Your task to perform on an android device: Search for a coffee table on Crate & Barrel Image 0: 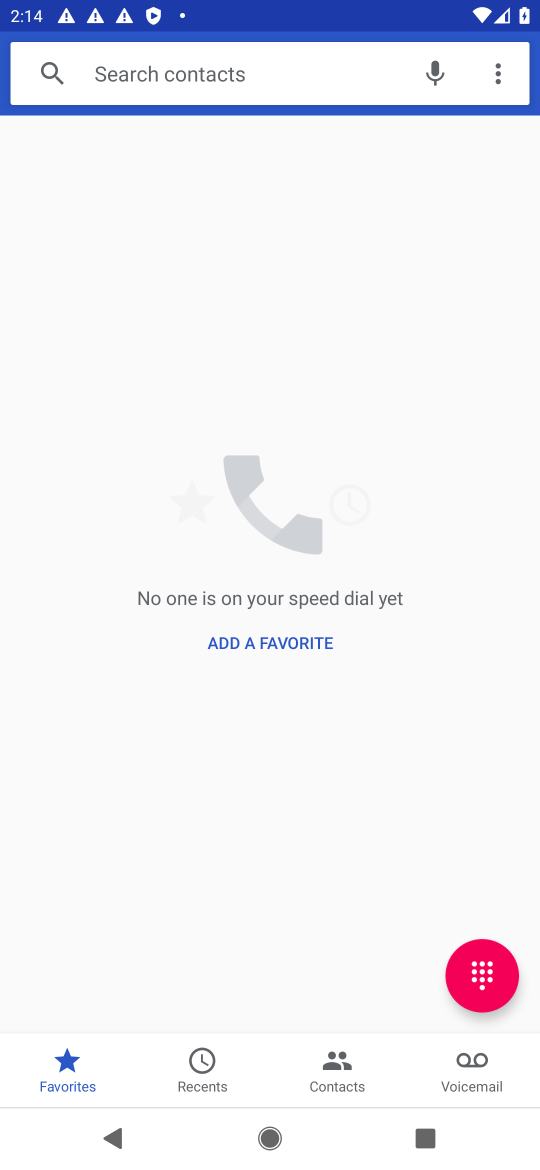
Step 0: press home button
Your task to perform on an android device: Search for a coffee table on Crate & Barrel Image 1: 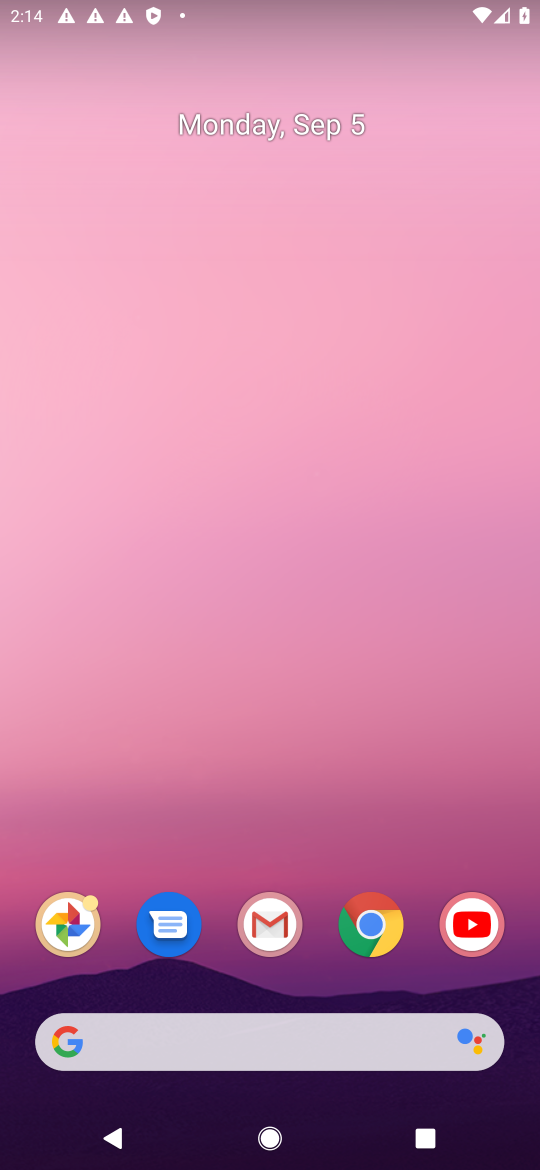
Step 1: drag from (278, 801) to (315, 236)
Your task to perform on an android device: Search for a coffee table on Crate & Barrel Image 2: 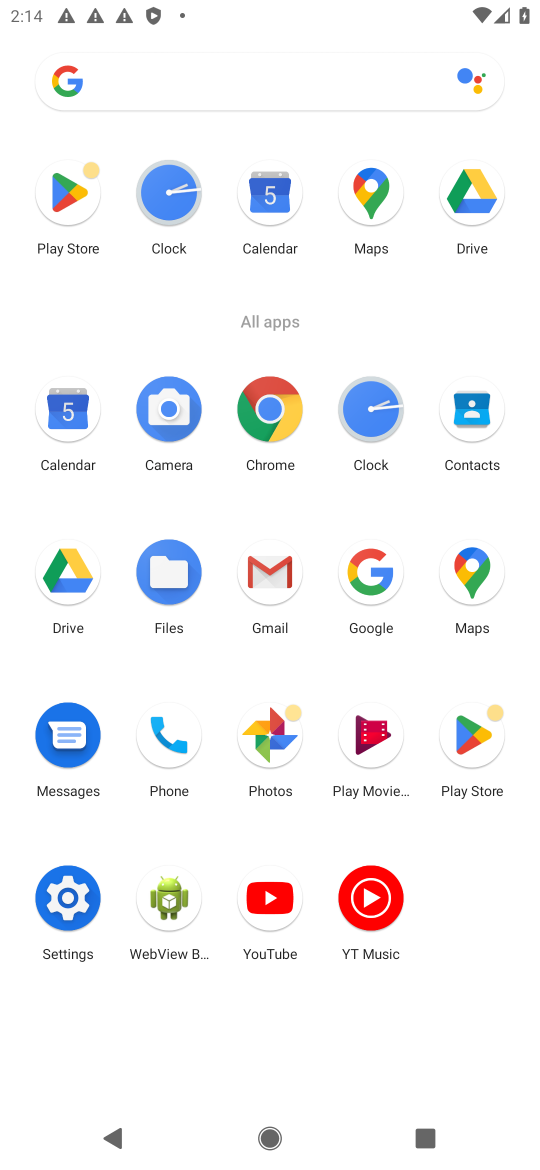
Step 2: click (280, 428)
Your task to perform on an android device: Search for a coffee table on Crate & Barrel Image 3: 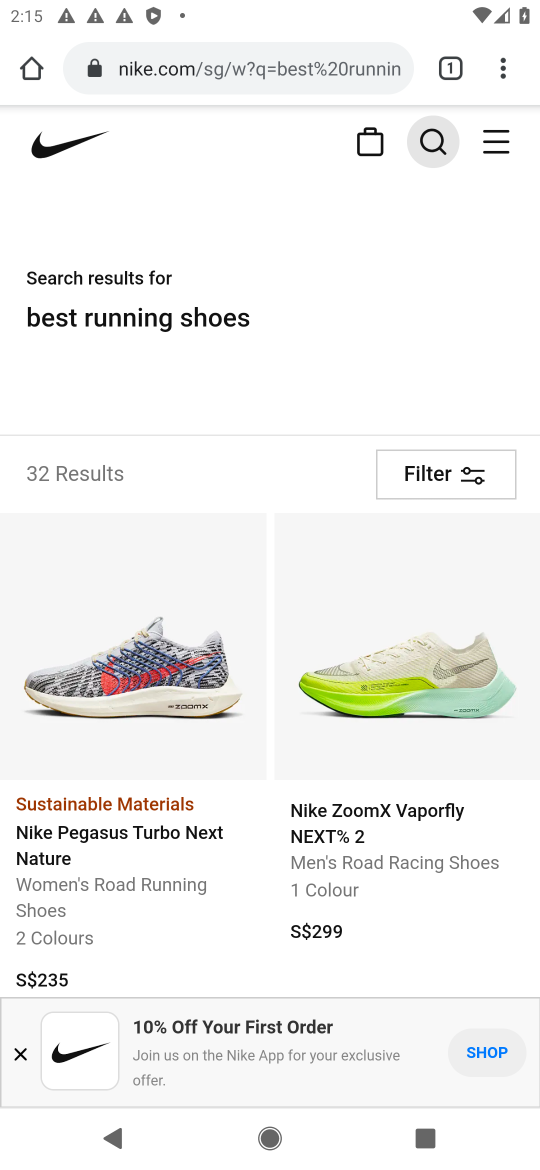
Step 3: press home button
Your task to perform on an android device: Search for a coffee table on Crate & Barrel Image 4: 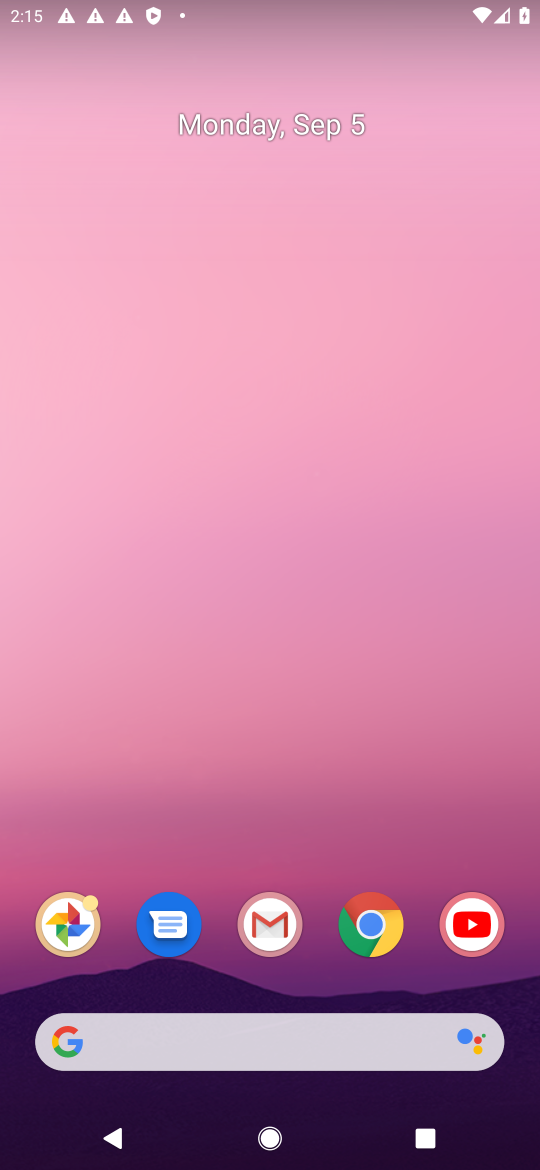
Step 4: click (362, 916)
Your task to perform on an android device: Search for a coffee table on Crate & Barrel Image 5: 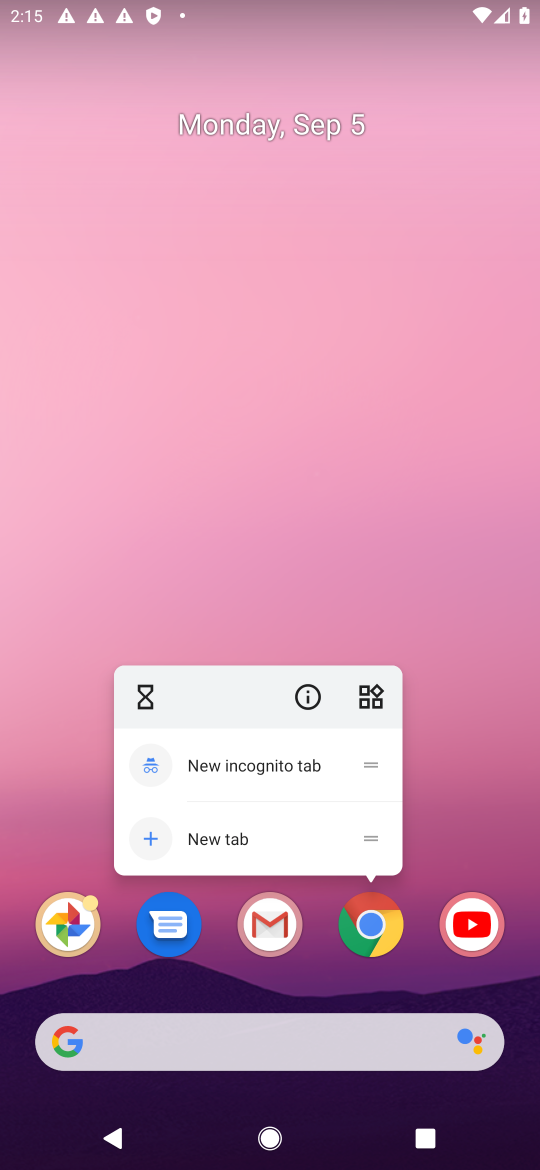
Step 5: click (374, 926)
Your task to perform on an android device: Search for a coffee table on Crate & Barrel Image 6: 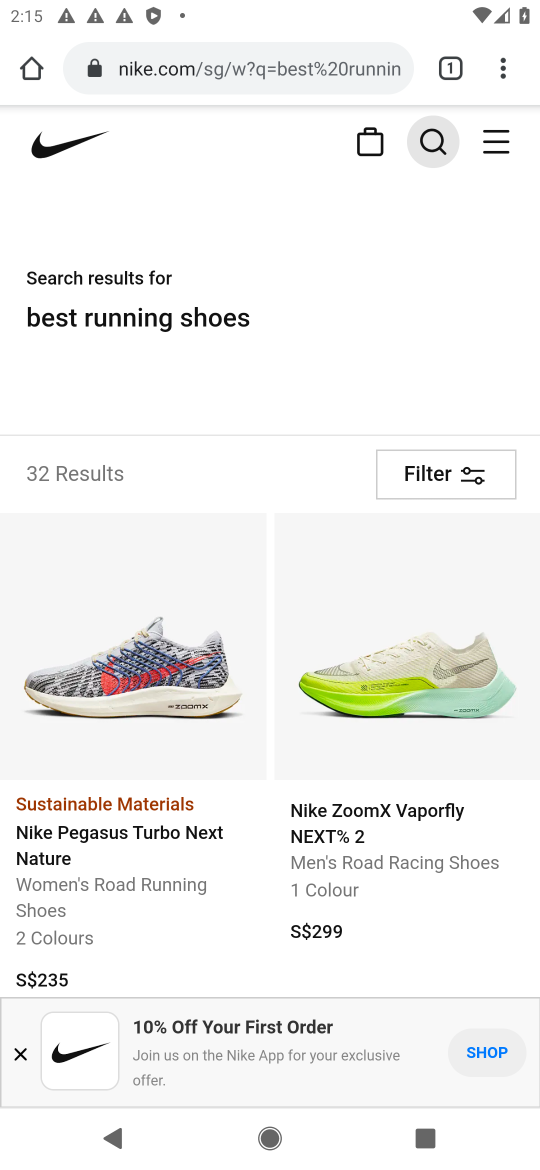
Step 6: click (241, 64)
Your task to perform on an android device: Search for a coffee table on Crate & Barrel Image 7: 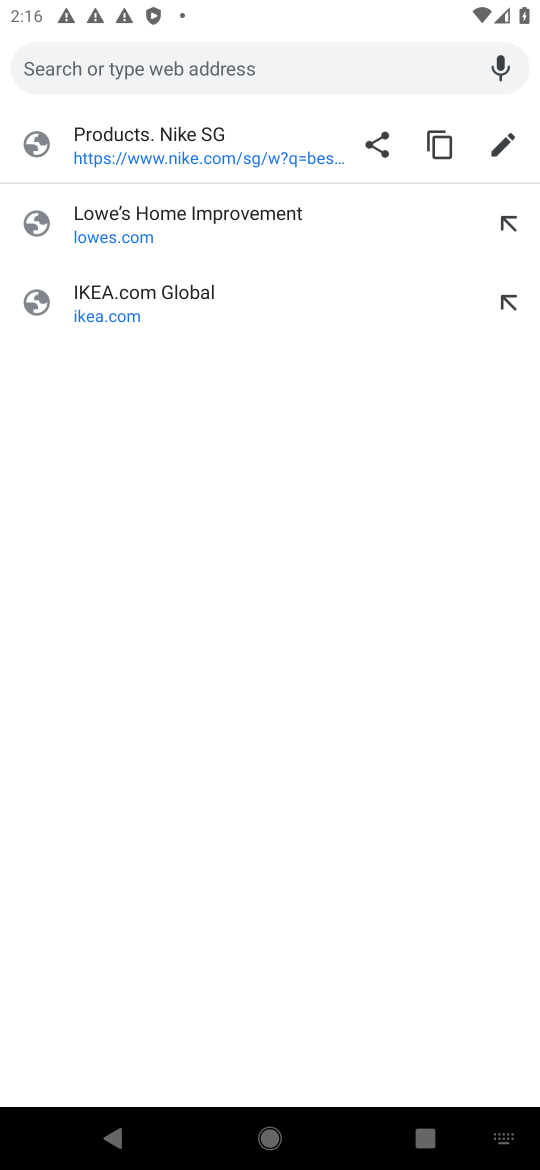
Step 7: type "crate and barrel"
Your task to perform on an android device: Search for a coffee table on Crate & Barrel Image 8: 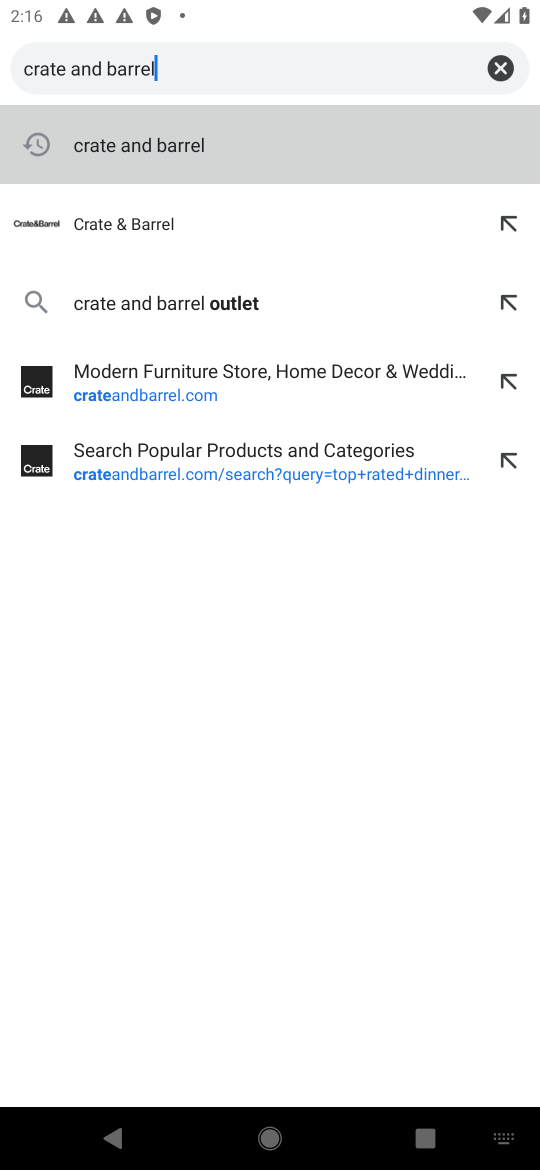
Step 8: click (163, 231)
Your task to perform on an android device: Search for a coffee table on Crate & Barrel Image 9: 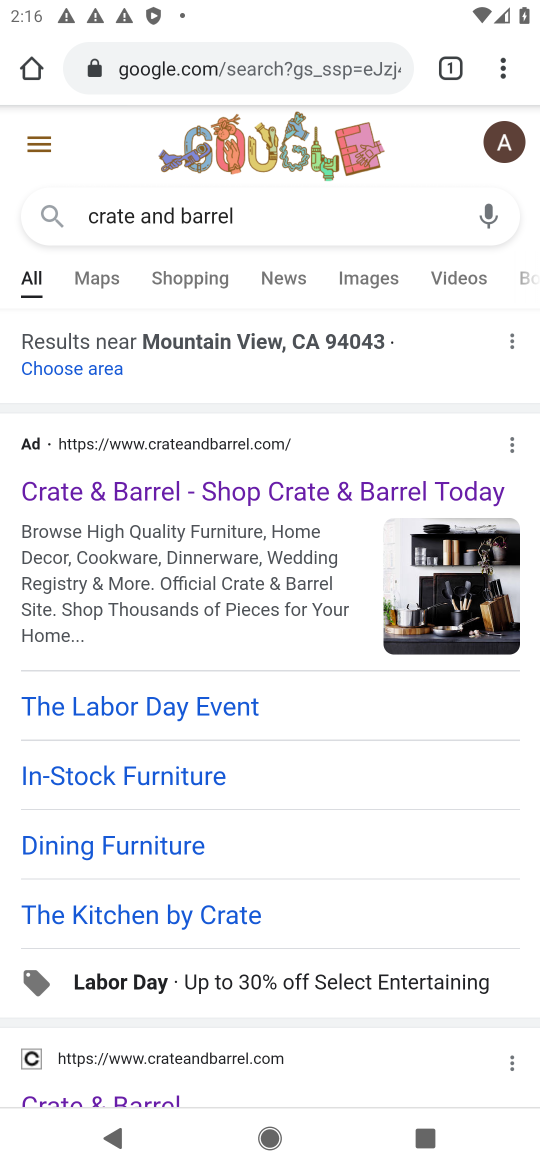
Step 9: click (235, 481)
Your task to perform on an android device: Search for a coffee table on Crate & Barrel Image 10: 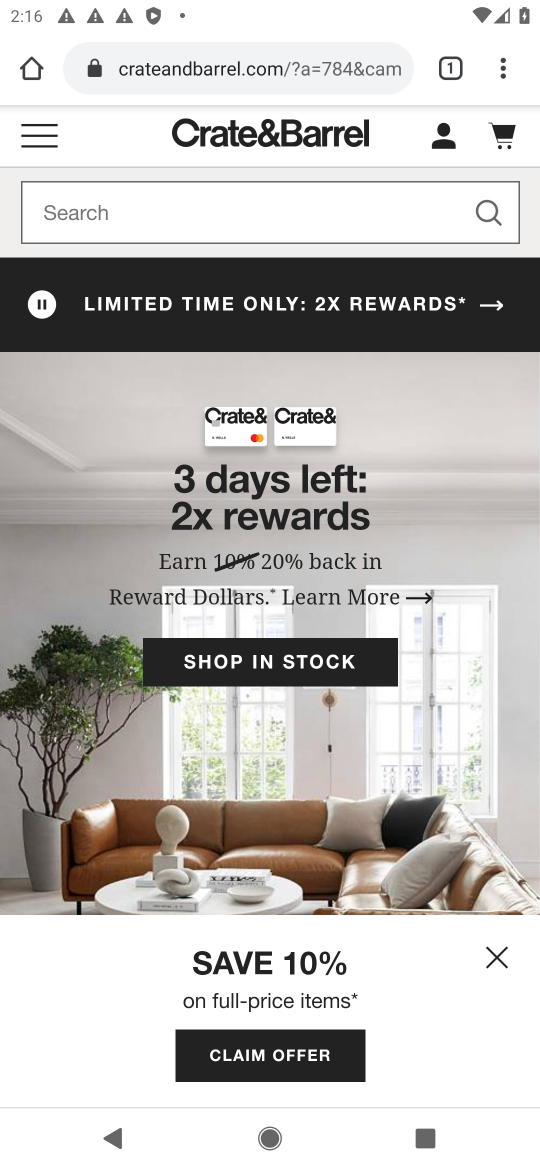
Step 10: click (274, 216)
Your task to perform on an android device: Search for a coffee table on Crate & Barrel Image 11: 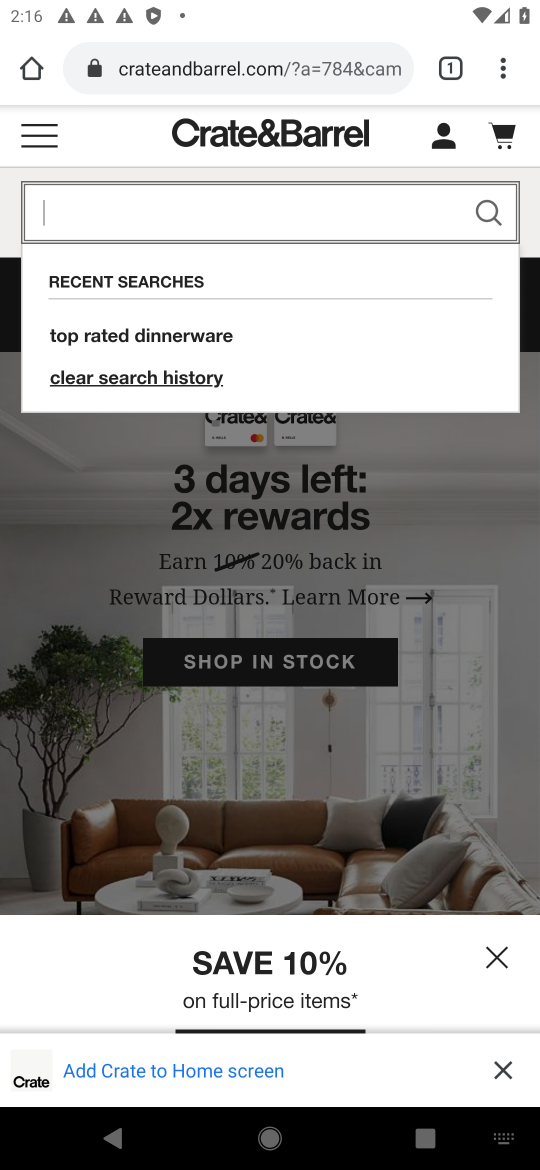
Step 11: type "coffee table"
Your task to perform on an android device: Search for a coffee table on Crate & Barrel Image 12: 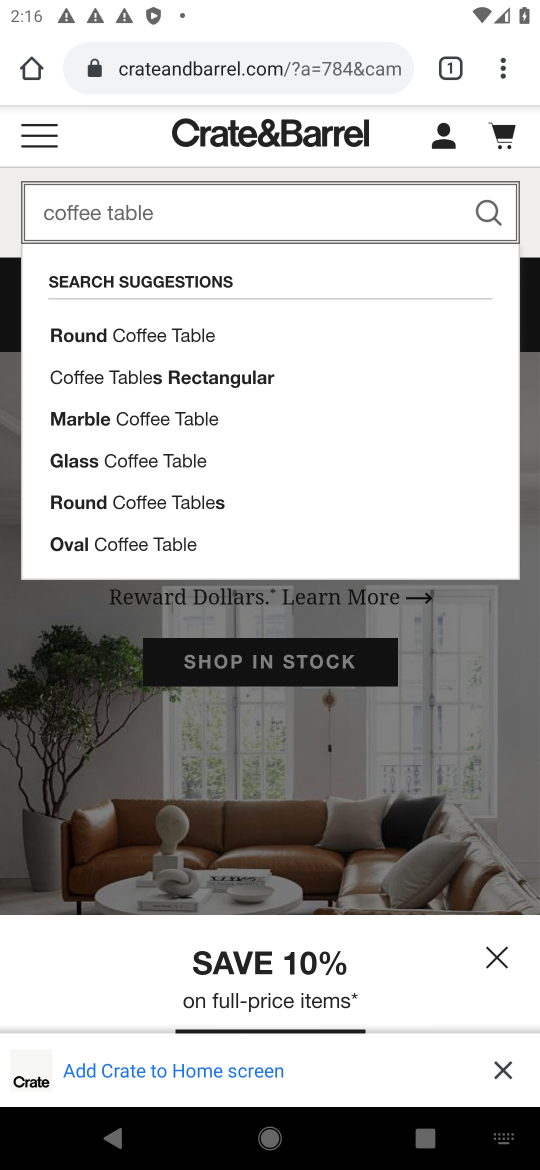
Step 12: click (489, 214)
Your task to perform on an android device: Search for a coffee table on Crate & Barrel Image 13: 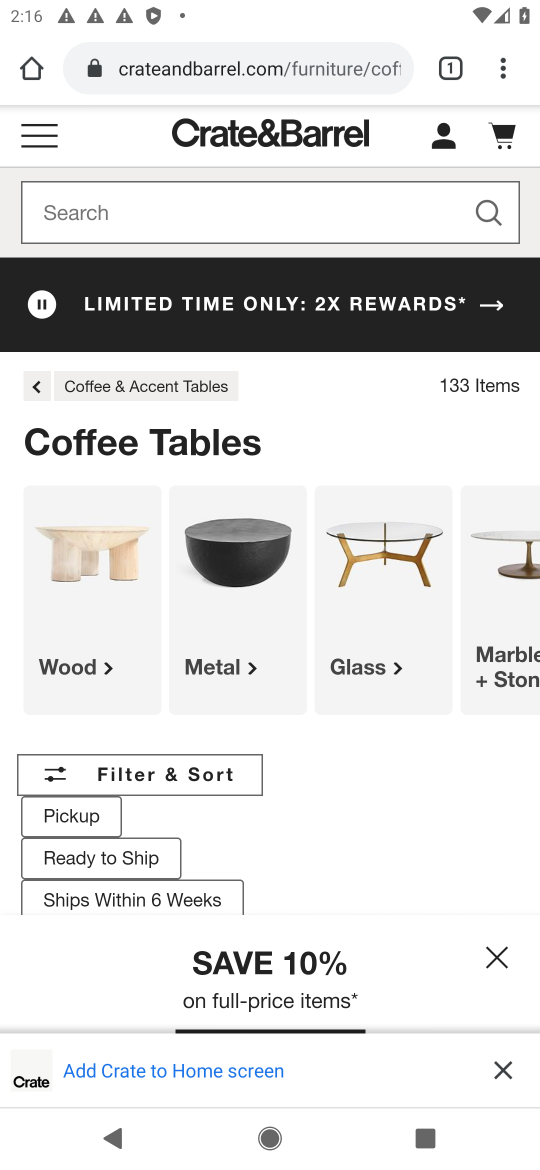
Step 13: task complete